Your task to perform on an android device: Open Chrome and go to the settings page Image 0: 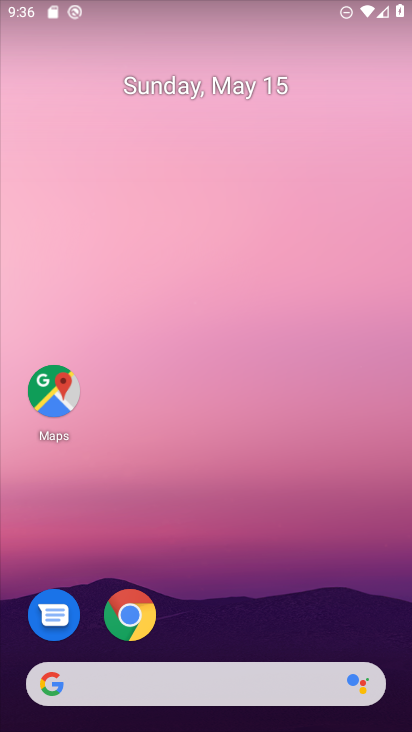
Step 0: drag from (221, 655) to (345, 111)
Your task to perform on an android device: Open Chrome and go to the settings page Image 1: 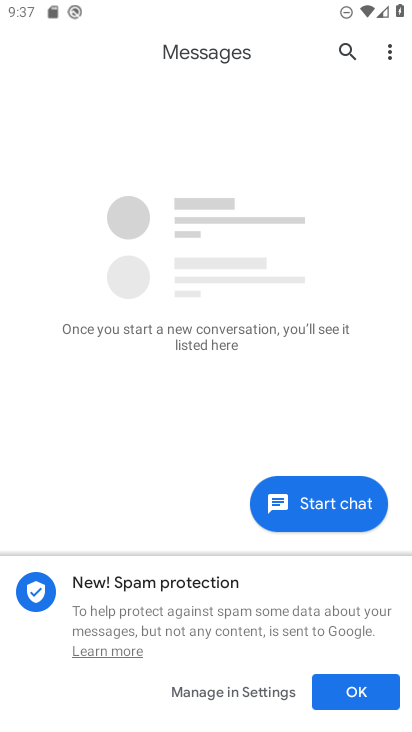
Step 1: press home button
Your task to perform on an android device: Open Chrome and go to the settings page Image 2: 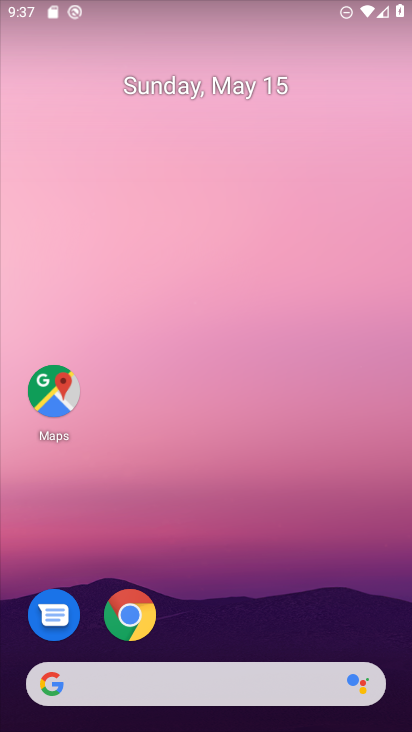
Step 2: click (132, 622)
Your task to perform on an android device: Open Chrome and go to the settings page Image 3: 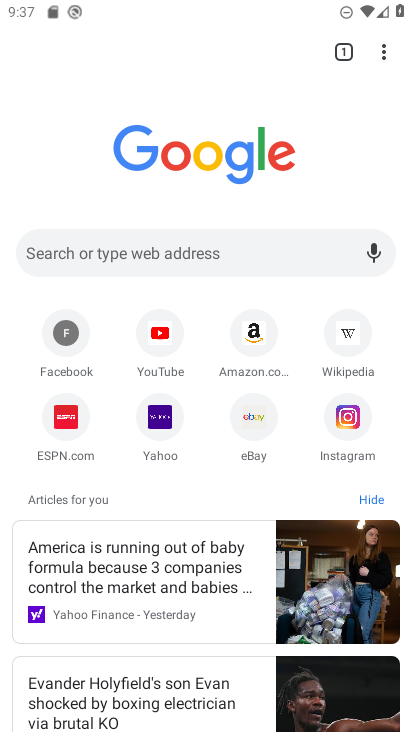
Step 3: task complete